Your task to perform on an android device: Do I have any events tomorrow? Image 0: 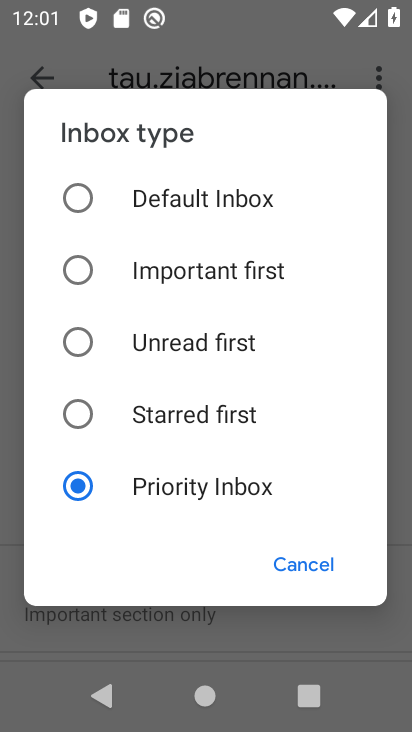
Step 0: press home button
Your task to perform on an android device: Do I have any events tomorrow? Image 1: 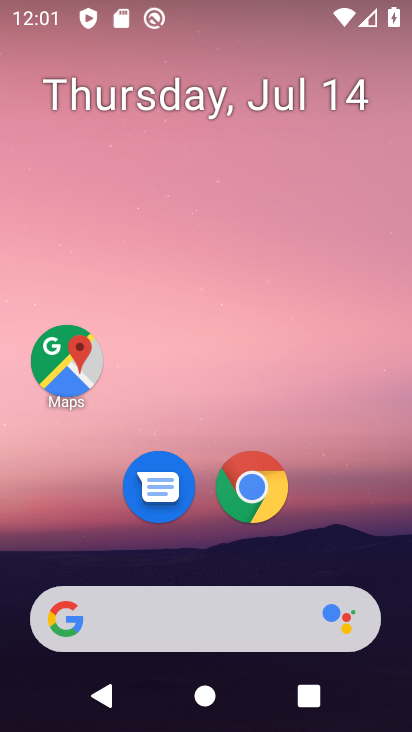
Step 1: drag from (200, 682) to (252, 247)
Your task to perform on an android device: Do I have any events tomorrow? Image 2: 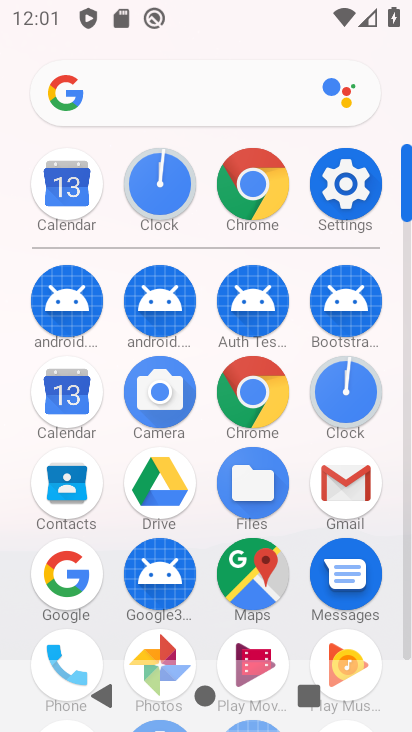
Step 2: click (61, 392)
Your task to perform on an android device: Do I have any events tomorrow? Image 3: 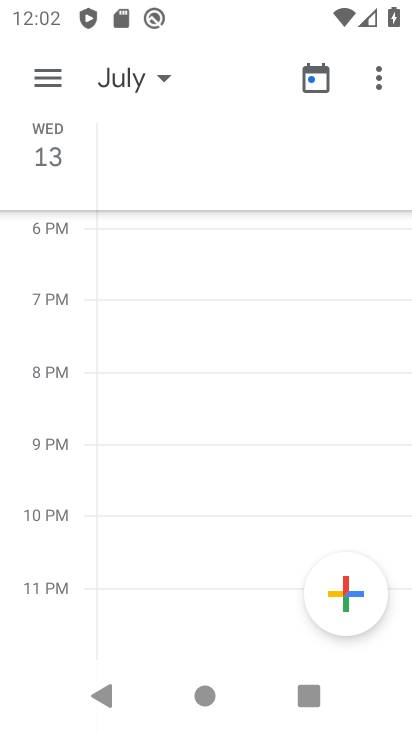
Step 3: click (47, 72)
Your task to perform on an android device: Do I have any events tomorrow? Image 4: 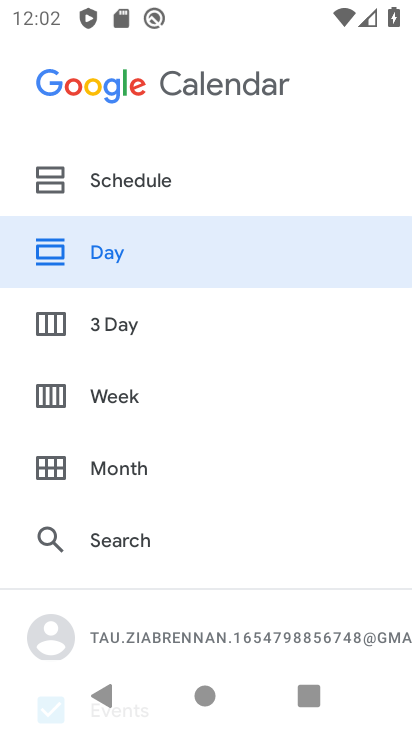
Step 4: click (157, 179)
Your task to perform on an android device: Do I have any events tomorrow? Image 5: 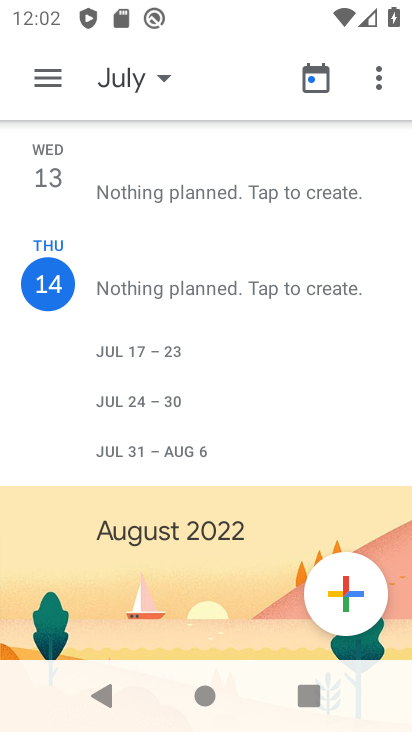
Step 5: task complete